Your task to perform on an android device: turn off priority inbox in the gmail app Image 0: 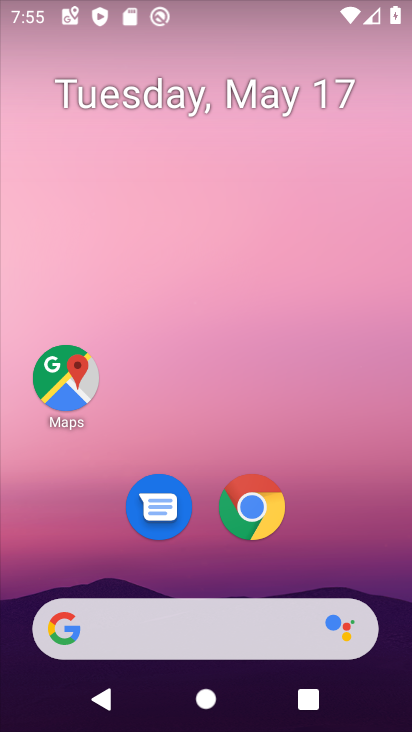
Step 0: drag from (381, 676) to (249, 240)
Your task to perform on an android device: turn off priority inbox in the gmail app Image 1: 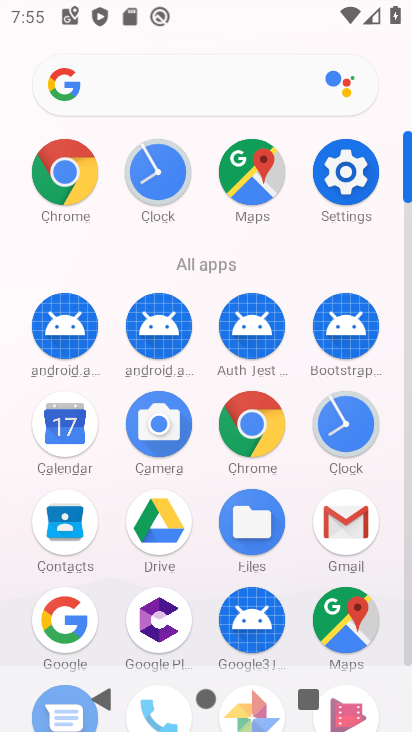
Step 1: click (341, 526)
Your task to perform on an android device: turn off priority inbox in the gmail app Image 2: 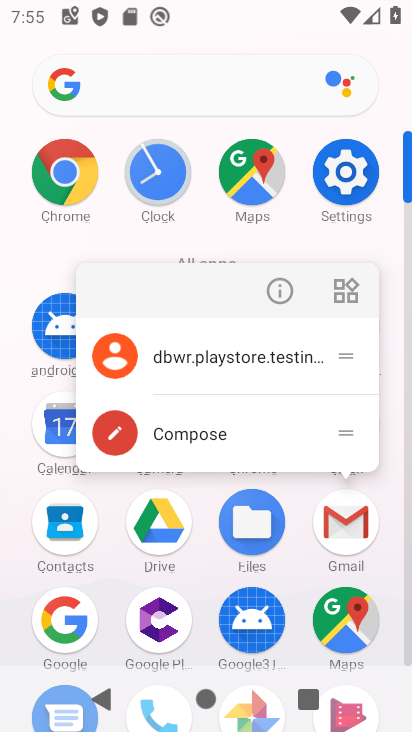
Step 2: click (341, 525)
Your task to perform on an android device: turn off priority inbox in the gmail app Image 3: 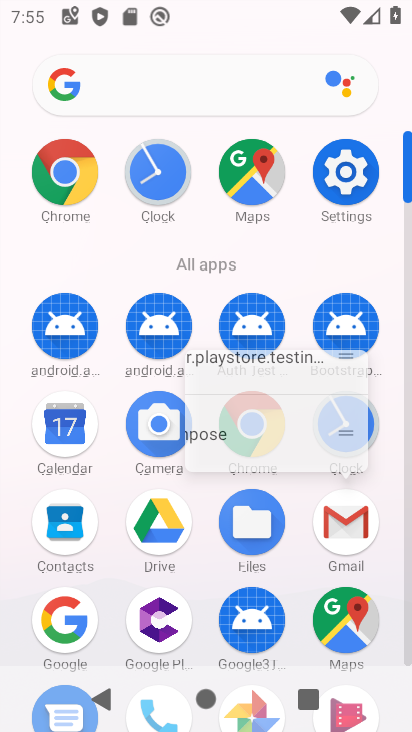
Step 3: click (345, 523)
Your task to perform on an android device: turn off priority inbox in the gmail app Image 4: 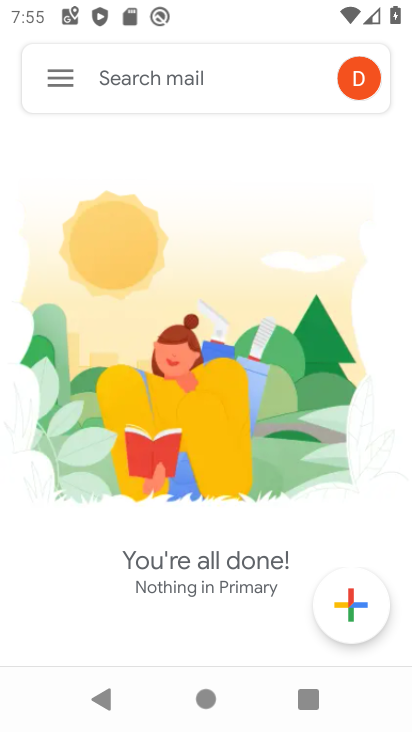
Step 4: click (62, 74)
Your task to perform on an android device: turn off priority inbox in the gmail app Image 5: 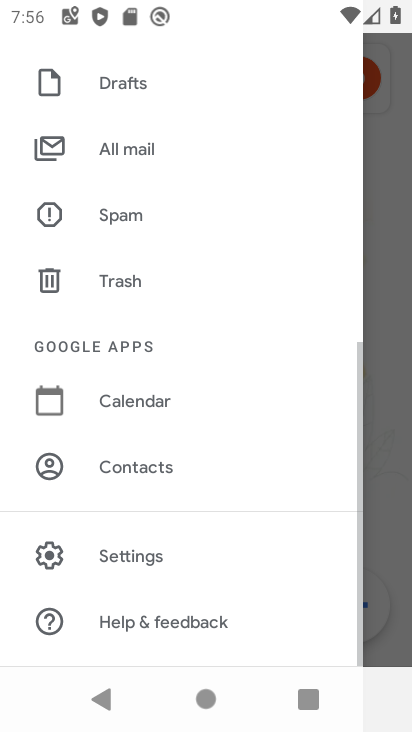
Step 5: click (151, 564)
Your task to perform on an android device: turn off priority inbox in the gmail app Image 6: 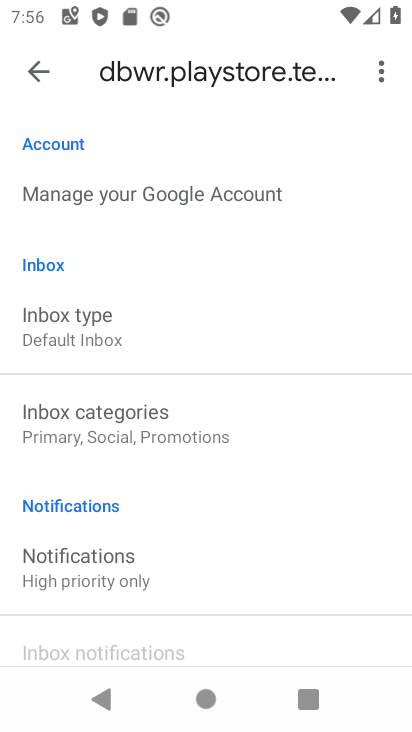
Step 6: click (83, 329)
Your task to perform on an android device: turn off priority inbox in the gmail app Image 7: 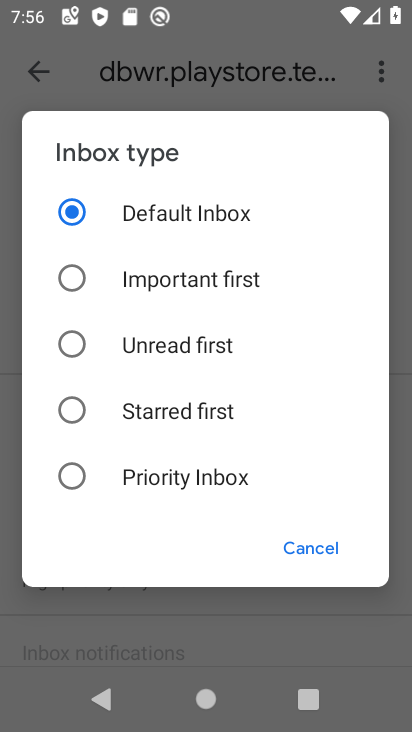
Step 7: click (76, 478)
Your task to perform on an android device: turn off priority inbox in the gmail app Image 8: 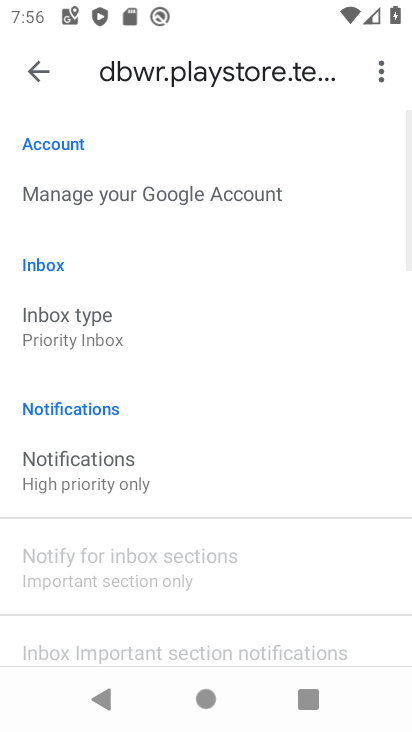
Step 8: task complete